Your task to perform on an android device: What's the news about the US stock market? Image 0: 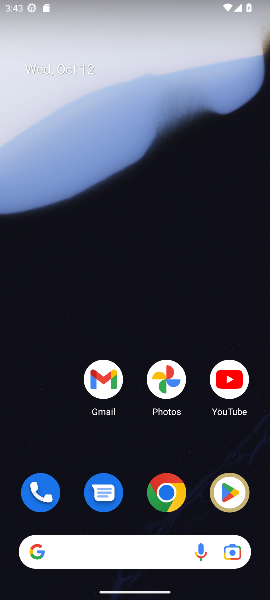
Step 0: click (168, 494)
Your task to perform on an android device: What's the news about the US stock market? Image 1: 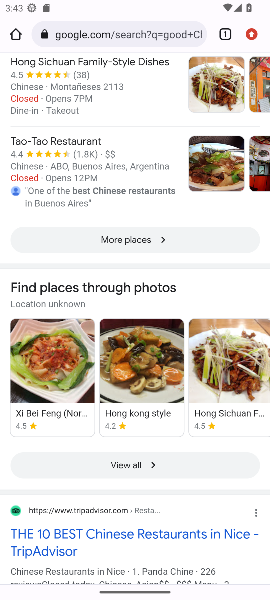
Step 1: click (84, 37)
Your task to perform on an android device: What's the news about the US stock market? Image 2: 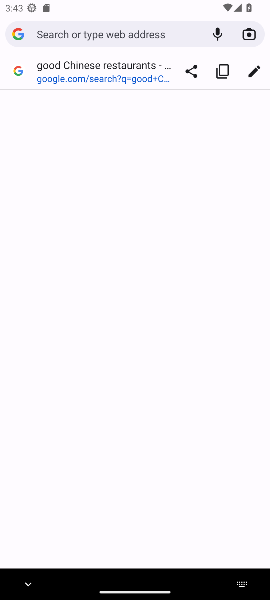
Step 2: type "news about the US stock market"
Your task to perform on an android device: What's the news about the US stock market? Image 3: 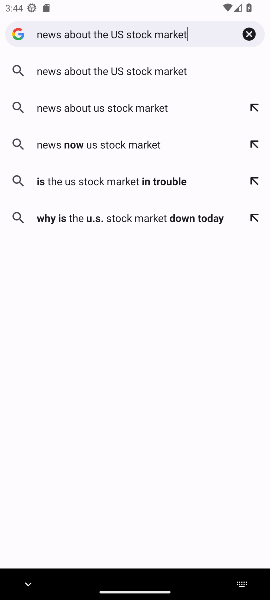
Step 3: click (100, 69)
Your task to perform on an android device: What's the news about the US stock market? Image 4: 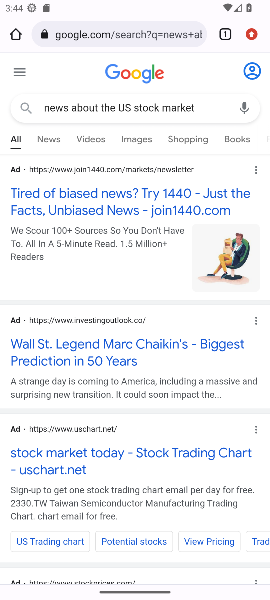
Step 4: click (47, 140)
Your task to perform on an android device: What's the news about the US stock market? Image 5: 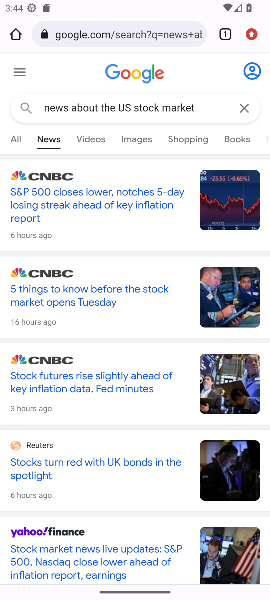
Step 5: click (50, 306)
Your task to perform on an android device: What's the news about the US stock market? Image 6: 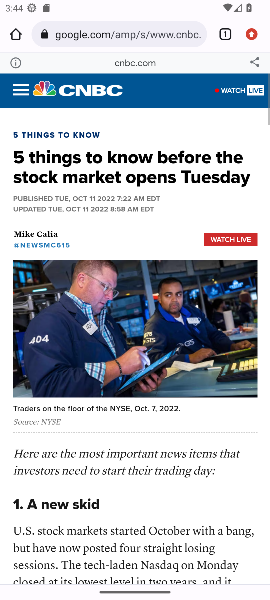
Step 6: task complete